Your task to perform on an android device: check android version Image 0: 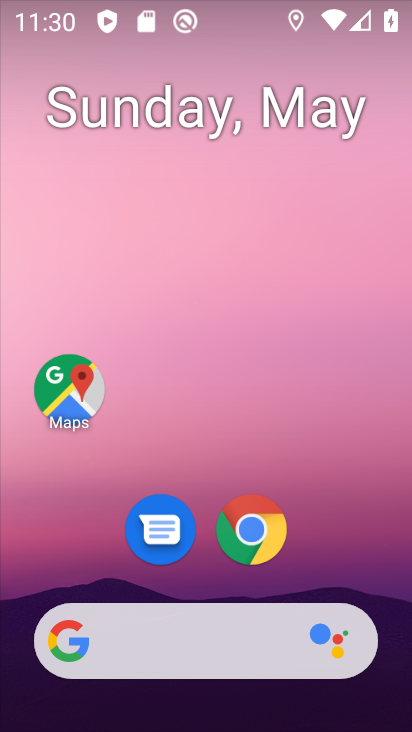
Step 0: drag from (302, 640) to (229, 19)
Your task to perform on an android device: check android version Image 1: 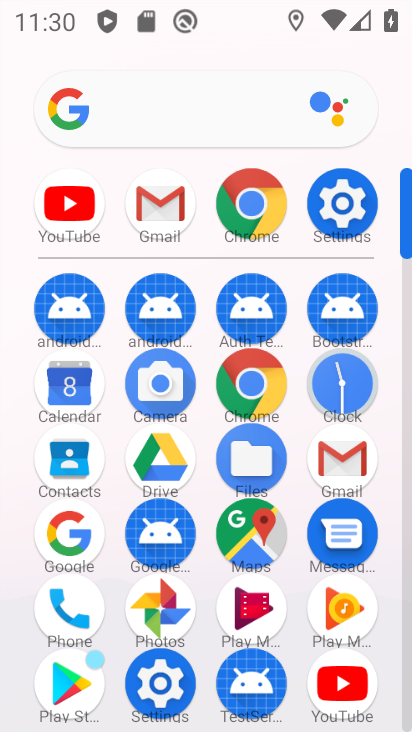
Step 1: click (338, 213)
Your task to perform on an android device: check android version Image 2: 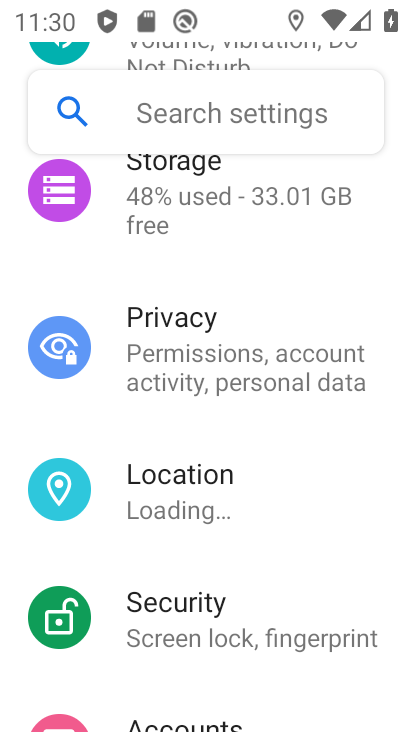
Step 2: drag from (307, 684) to (324, 229)
Your task to perform on an android device: check android version Image 3: 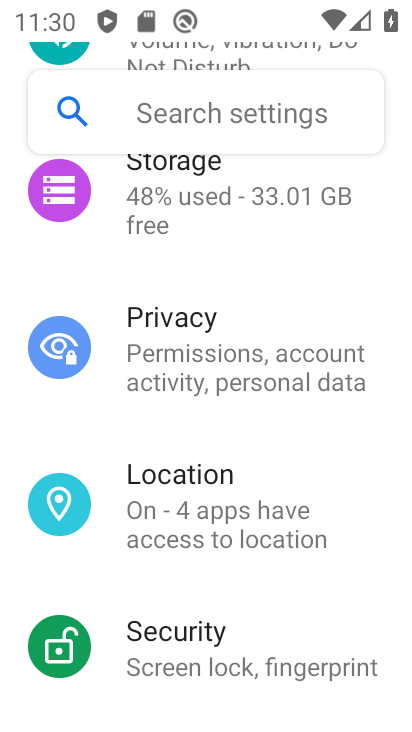
Step 3: drag from (301, 720) to (294, 397)
Your task to perform on an android device: check android version Image 4: 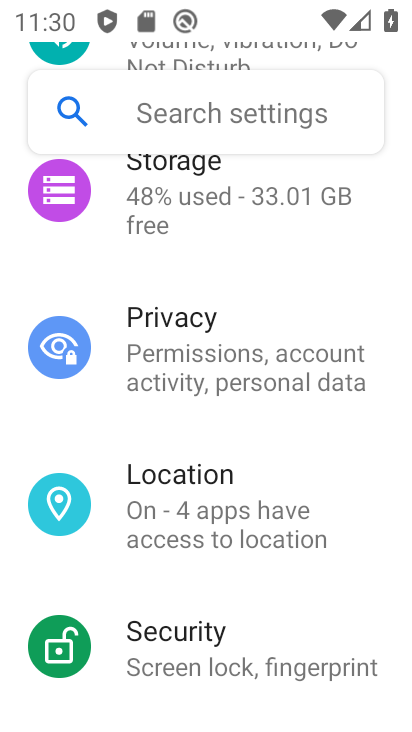
Step 4: drag from (331, 672) to (298, 294)
Your task to perform on an android device: check android version Image 5: 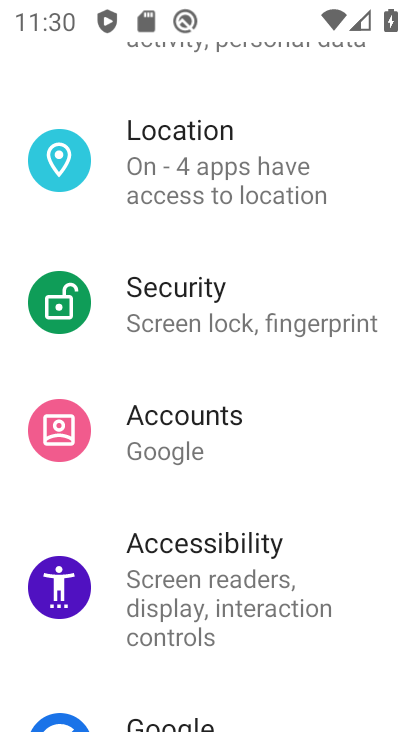
Step 5: drag from (214, 723) to (189, 135)
Your task to perform on an android device: check android version Image 6: 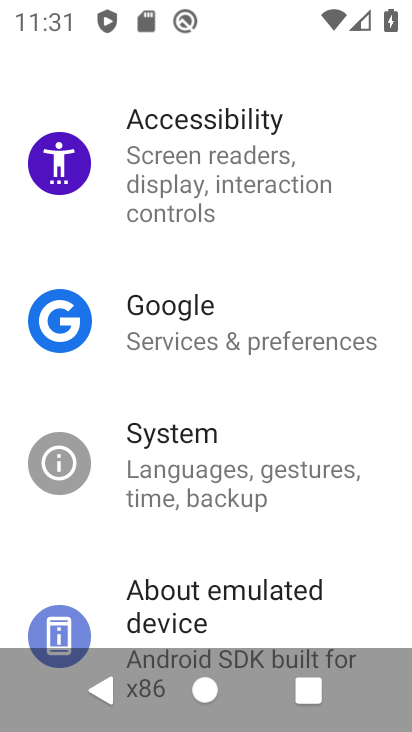
Step 6: drag from (280, 592) to (237, 213)
Your task to perform on an android device: check android version Image 7: 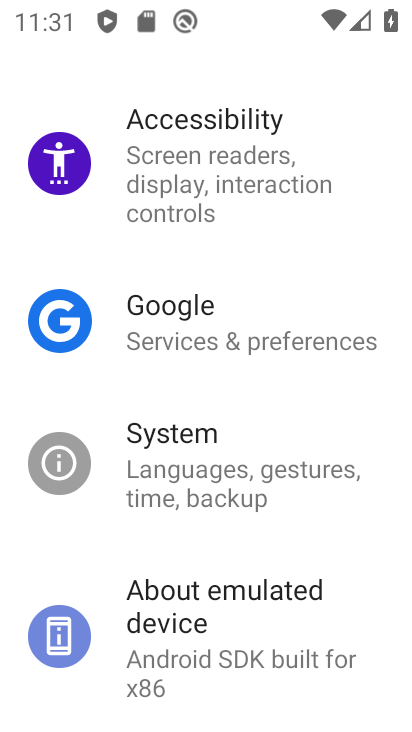
Step 7: click (275, 630)
Your task to perform on an android device: check android version Image 8: 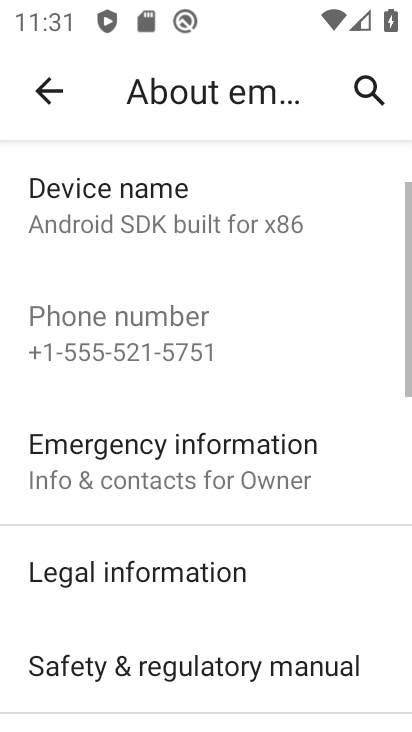
Step 8: task complete